Your task to perform on an android device: Open Reddit.com Image 0: 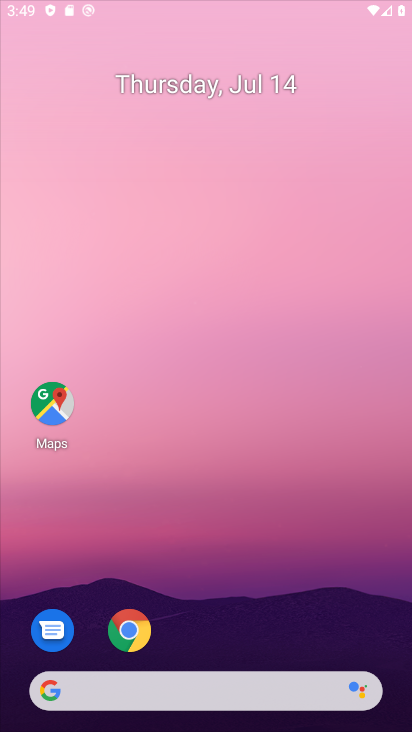
Step 0: drag from (335, 551) to (332, 325)
Your task to perform on an android device: Open Reddit.com Image 1: 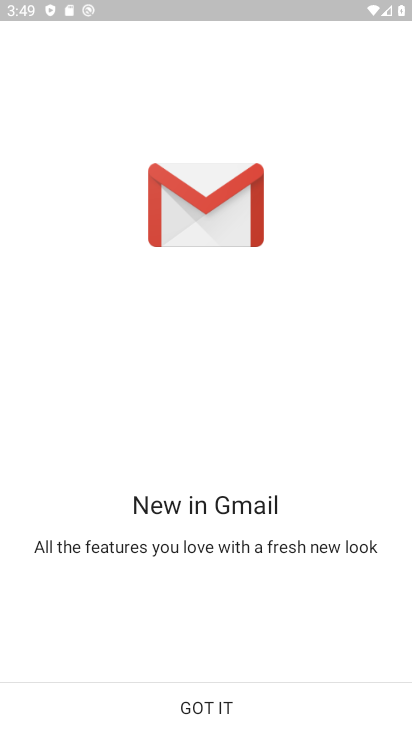
Step 1: press home button
Your task to perform on an android device: Open Reddit.com Image 2: 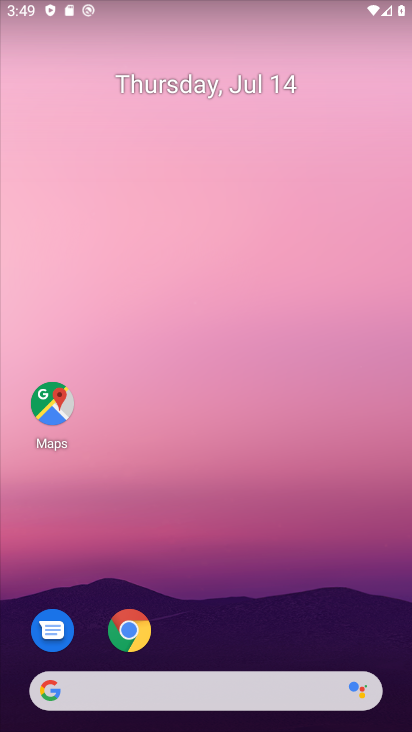
Step 2: drag from (251, 619) to (240, 193)
Your task to perform on an android device: Open Reddit.com Image 3: 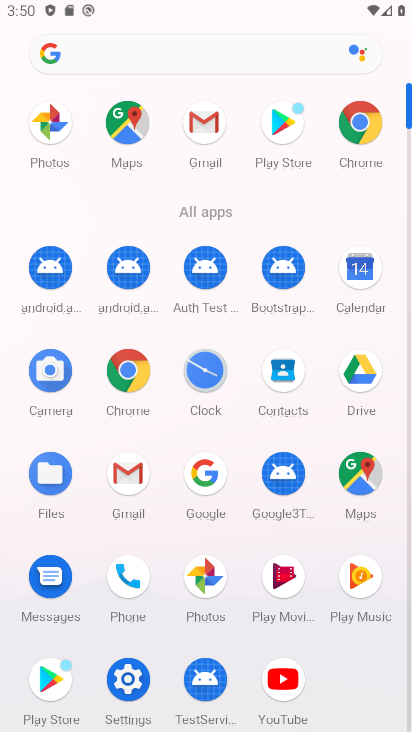
Step 3: click (135, 384)
Your task to perform on an android device: Open Reddit.com Image 4: 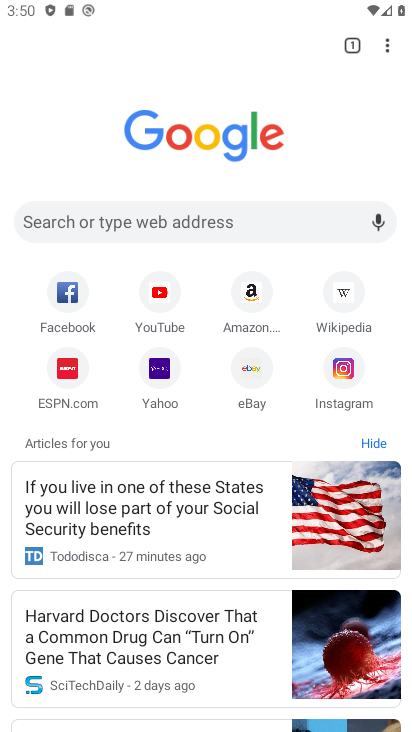
Step 4: click (165, 218)
Your task to perform on an android device: Open Reddit.com Image 5: 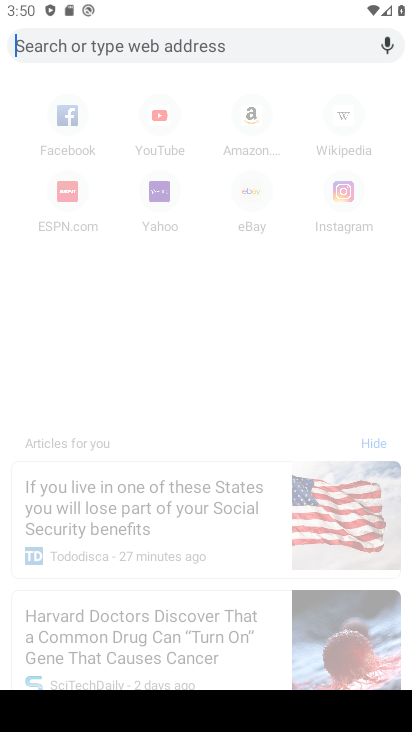
Step 5: type "reddit.com"
Your task to perform on an android device: Open Reddit.com Image 6: 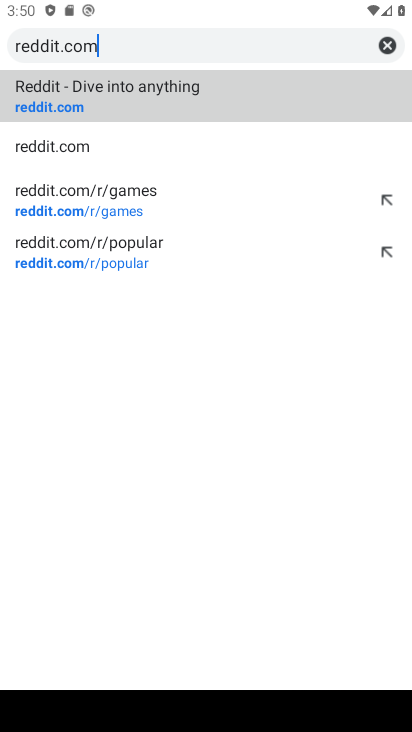
Step 6: click (234, 107)
Your task to perform on an android device: Open Reddit.com Image 7: 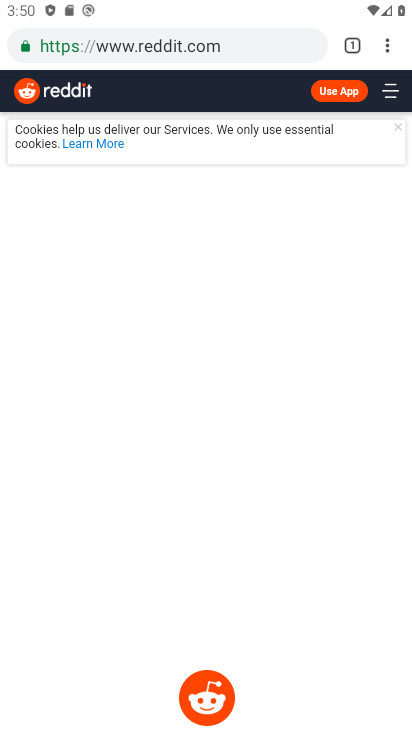
Step 7: task complete